Your task to perform on an android device: allow notifications from all sites in the chrome app Image 0: 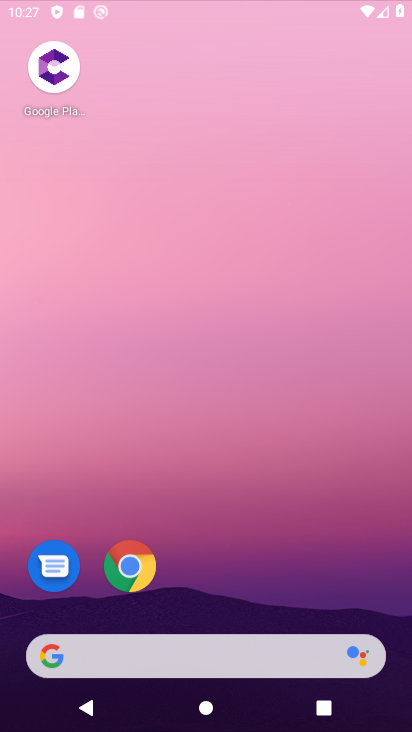
Step 0: drag from (234, 628) to (253, 91)
Your task to perform on an android device: allow notifications from all sites in the chrome app Image 1: 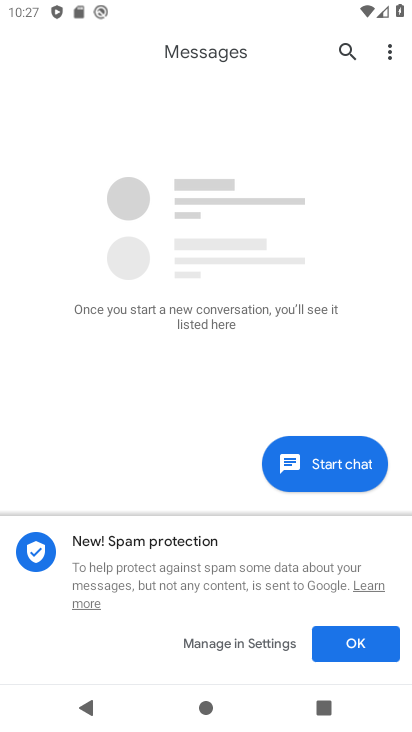
Step 1: press home button
Your task to perform on an android device: allow notifications from all sites in the chrome app Image 2: 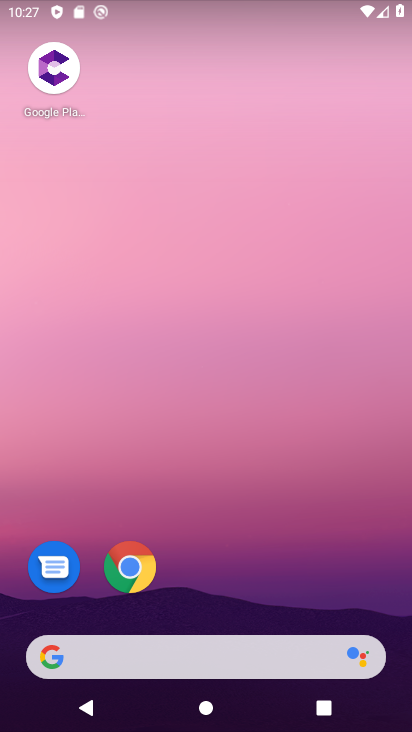
Step 2: click (121, 549)
Your task to perform on an android device: allow notifications from all sites in the chrome app Image 3: 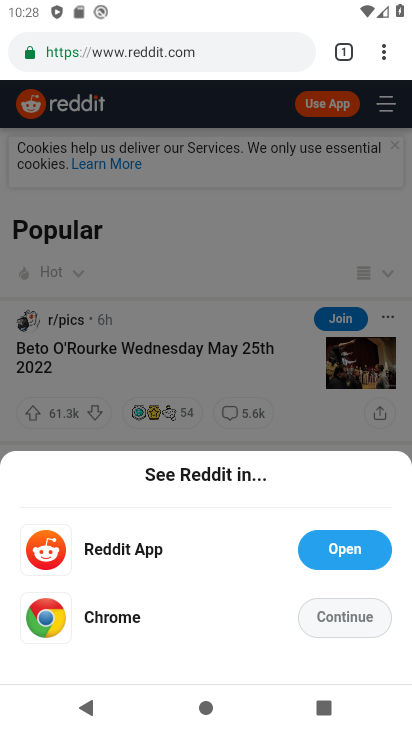
Step 3: click (333, 611)
Your task to perform on an android device: allow notifications from all sites in the chrome app Image 4: 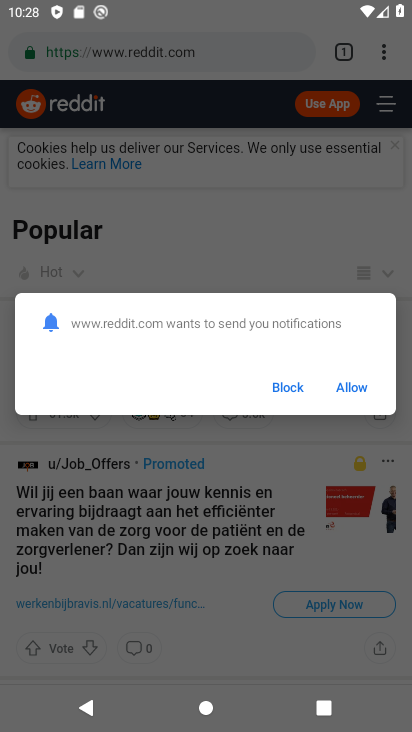
Step 4: click (356, 386)
Your task to perform on an android device: allow notifications from all sites in the chrome app Image 5: 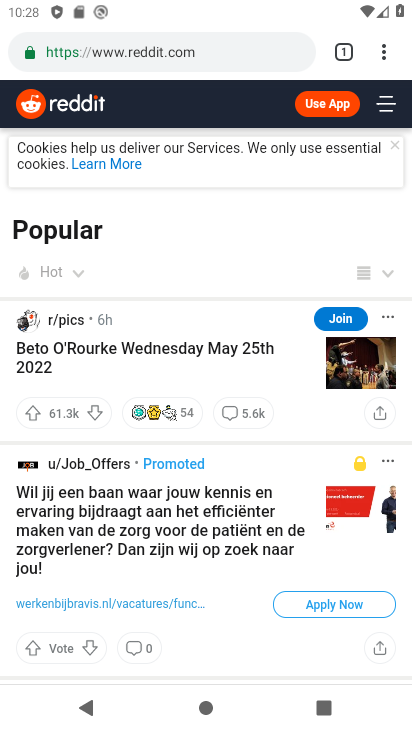
Step 5: click (382, 48)
Your task to perform on an android device: allow notifications from all sites in the chrome app Image 6: 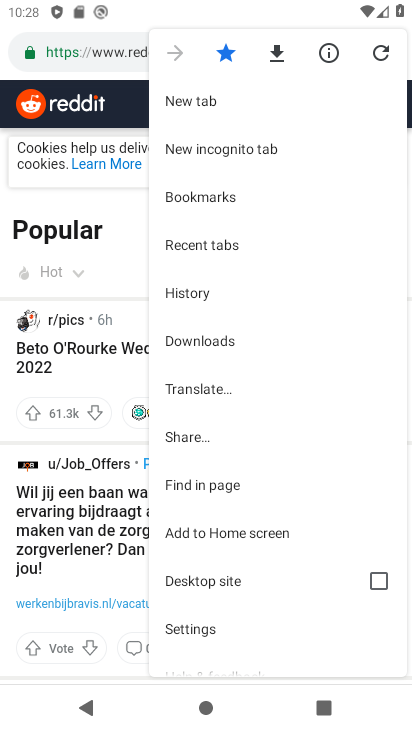
Step 6: click (174, 616)
Your task to perform on an android device: allow notifications from all sites in the chrome app Image 7: 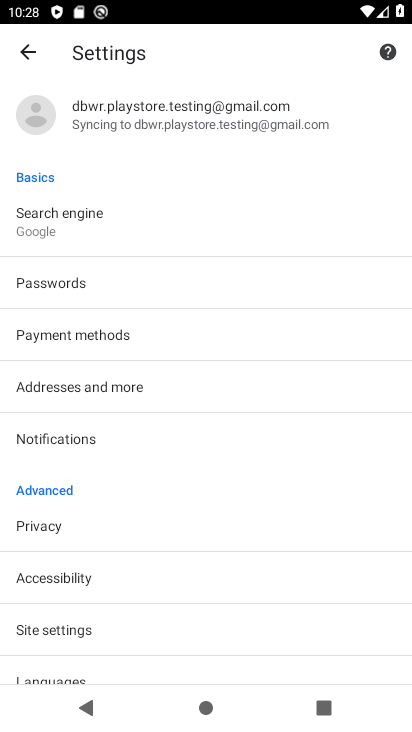
Step 7: click (74, 420)
Your task to perform on an android device: allow notifications from all sites in the chrome app Image 8: 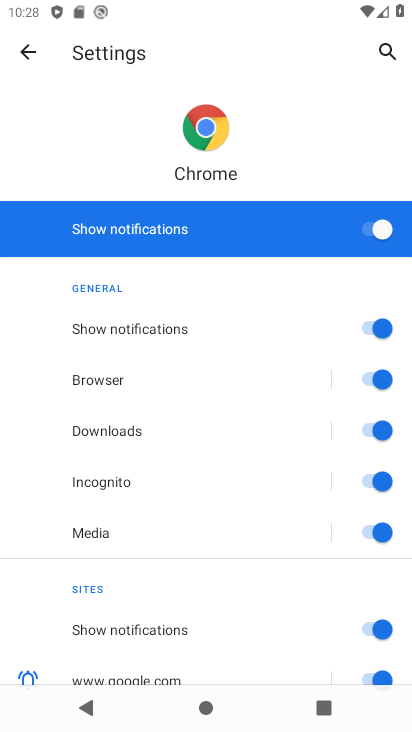
Step 8: click (18, 56)
Your task to perform on an android device: allow notifications from all sites in the chrome app Image 9: 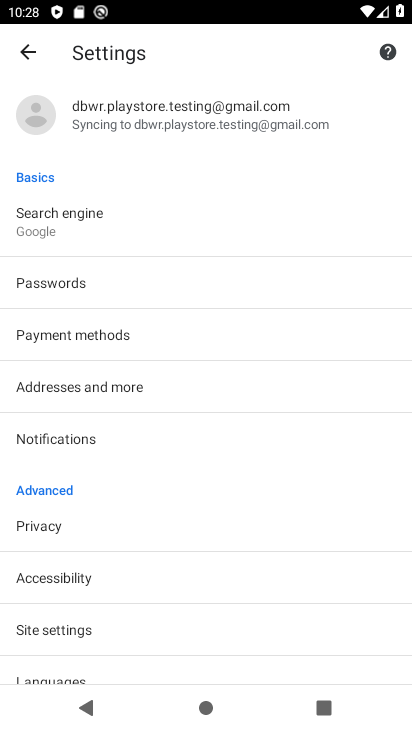
Step 9: click (108, 637)
Your task to perform on an android device: allow notifications from all sites in the chrome app Image 10: 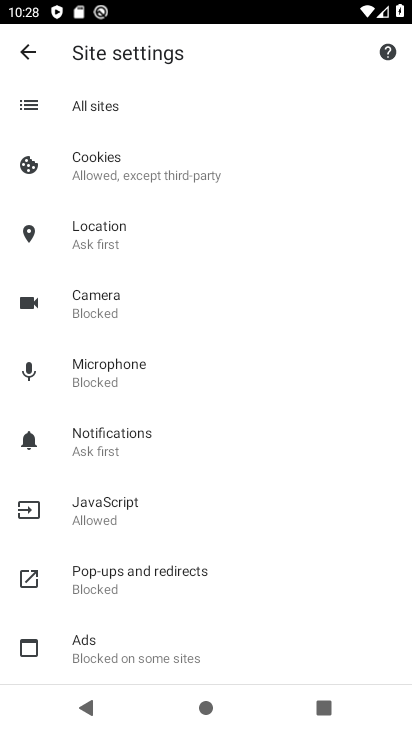
Step 10: click (89, 438)
Your task to perform on an android device: allow notifications from all sites in the chrome app Image 11: 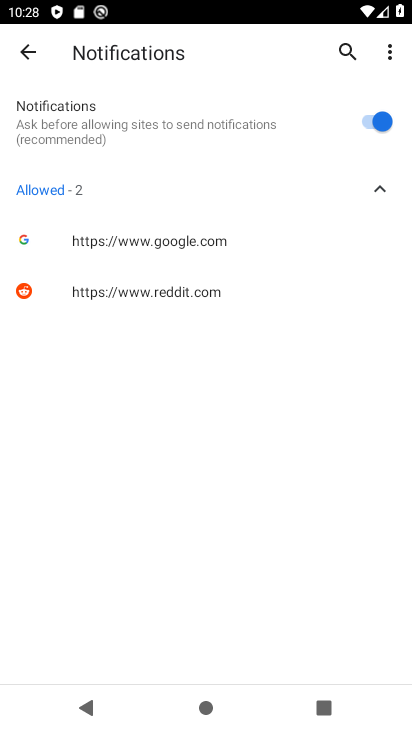
Step 11: task complete